Your task to perform on an android device: Do I have any events this weekend? Image 0: 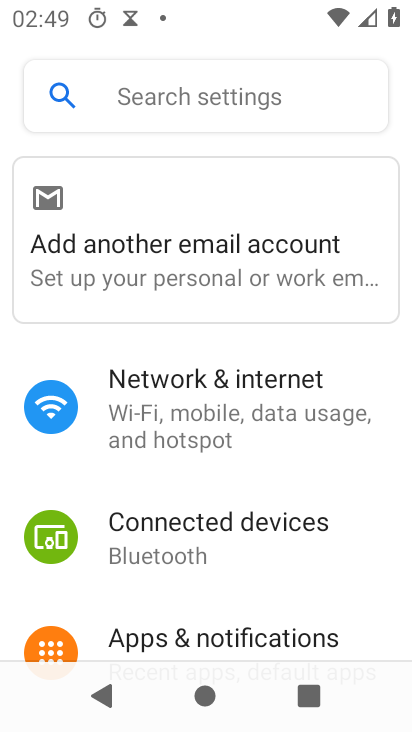
Step 0: press home button
Your task to perform on an android device: Do I have any events this weekend? Image 1: 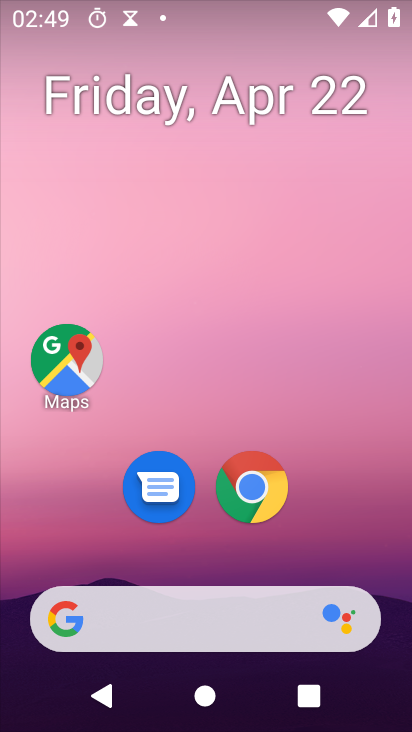
Step 1: drag from (185, 614) to (305, 74)
Your task to perform on an android device: Do I have any events this weekend? Image 2: 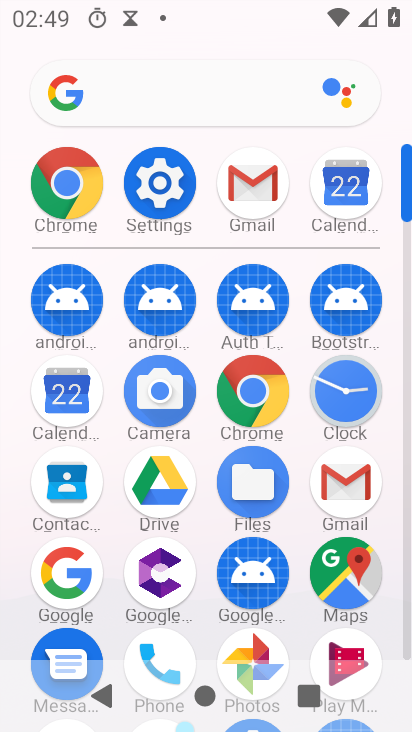
Step 2: click (68, 401)
Your task to perform on an android device: Do I have any events this weekend? Image 3: 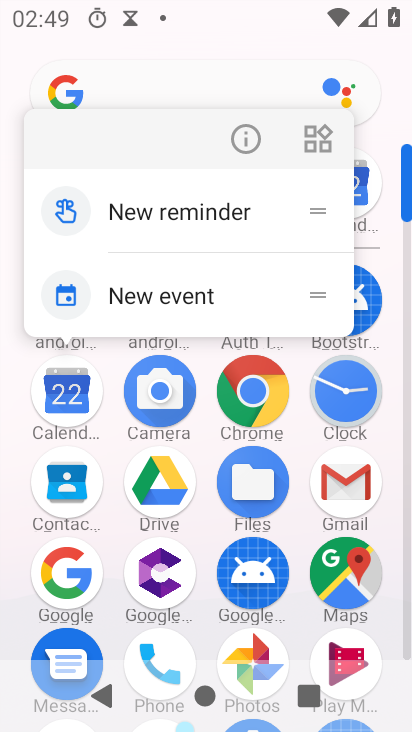
Step 3: click (67, 407)
Your task to perform on an android device: Do I have any events this weekend? Image 4: 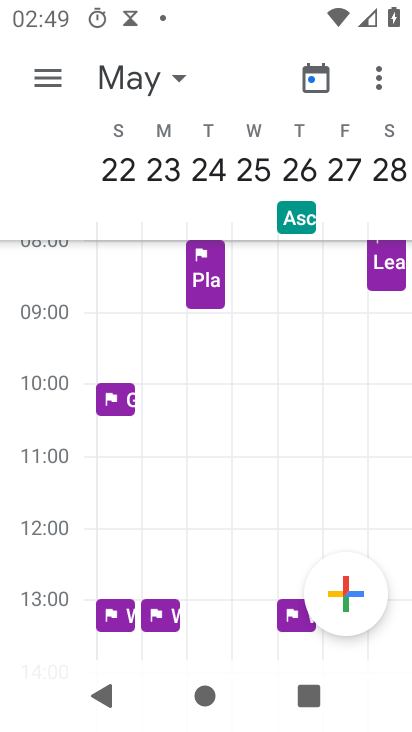
Step 4: click (141, 87)
Your task to perform on an android device: Do I have any events this weekend? Image 5: 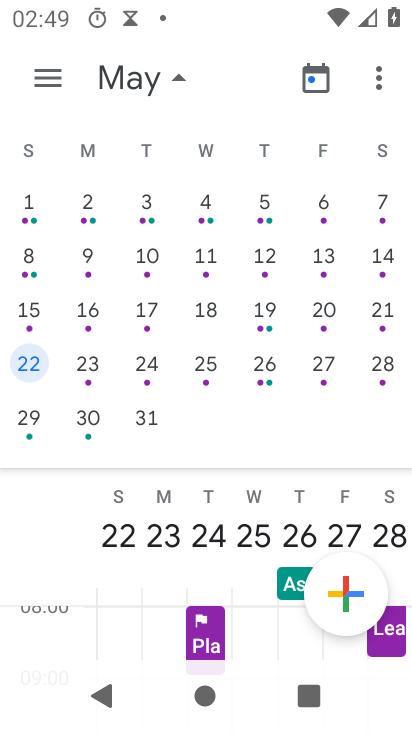
Step 5: drag from (74, 298) to (410, 350)
Your task to perform on an android device: Do I have any events this weekend? Image 6: 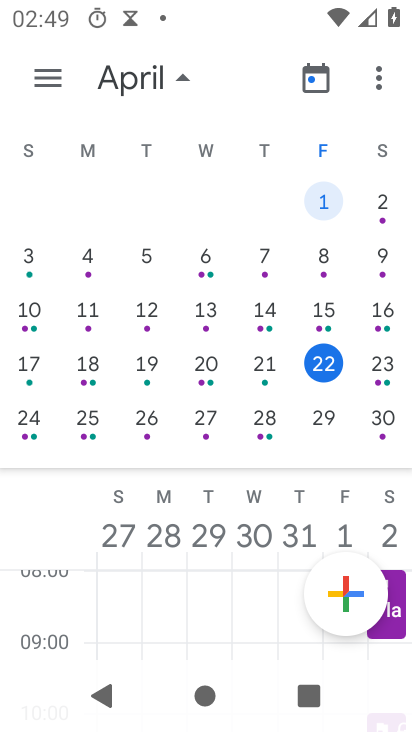
Step 6: click (383, 368)
Your task to perform on an android device: Do I have any events this weekend? Image 7: 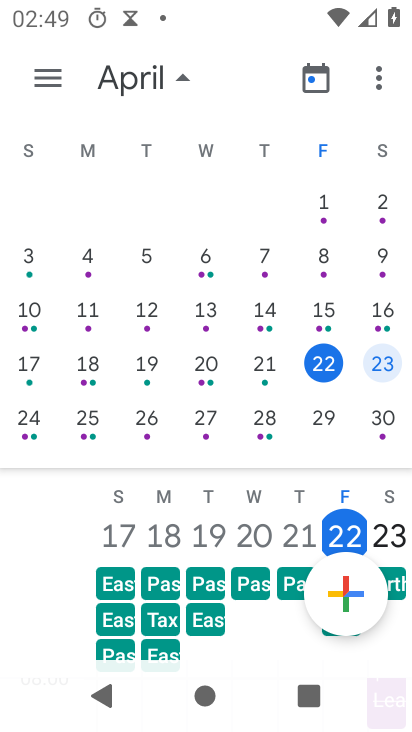
Step 7: click (46, 78)
Your task to perform on an android device: Do I have any events this weekend? Image 8: 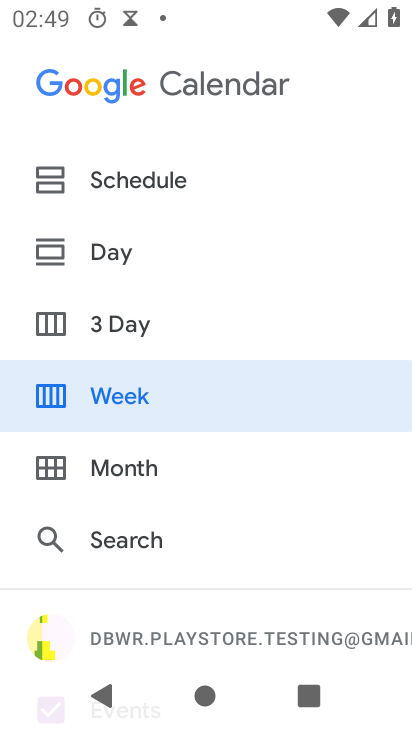
Step 8: click (124, 188)
Your task to perform on an android device: Do I have any events this weekend? Image 9: 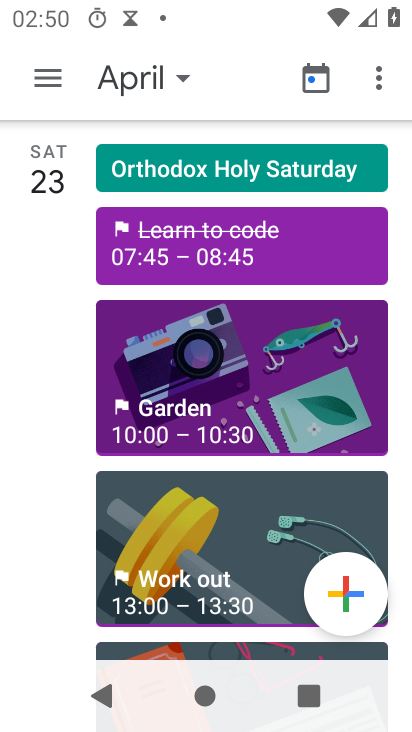
Step 9: click (194, 253)
Your task to perform on an android device: Do I have any events this weekend? Image 10: 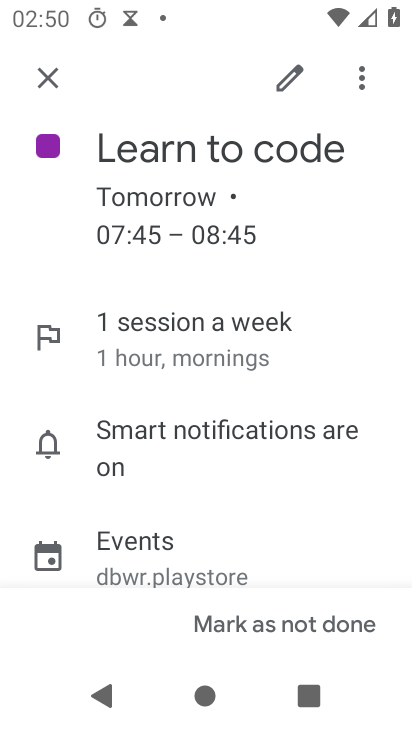
Step 10: task complete